Your task to perform on an android device: Turn on the flashlight Image 0: 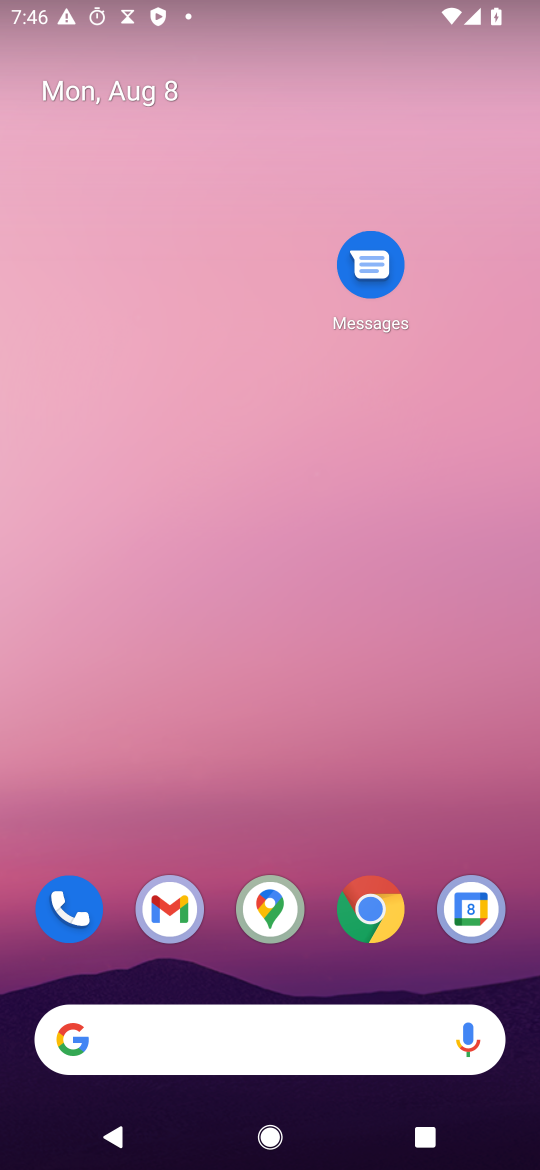
Step 0: drag from (310, 6) to (362, 745)
Your task to perform on an android device: Turn on the flashlight Image 1: 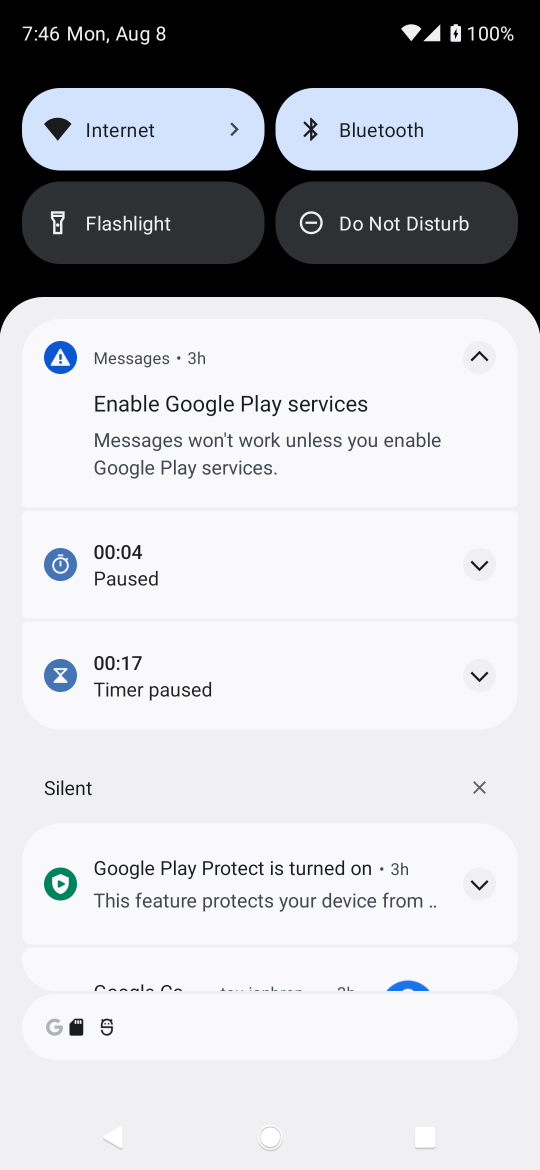
Step 1: task complete